Your task to perform on an android device: turn off notifications settings in the gmail app Image 0: 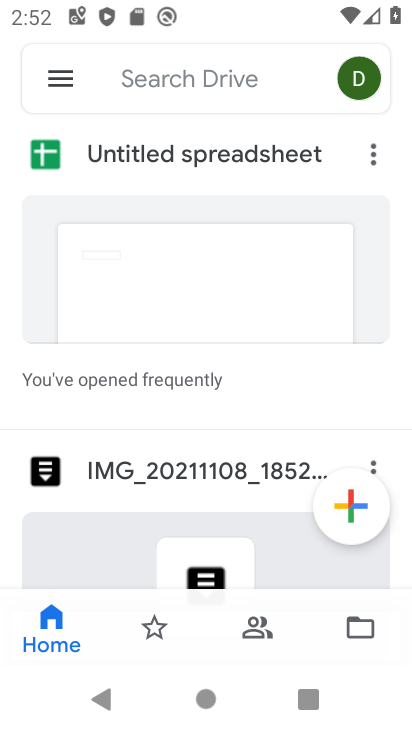
Step 0: press home button
Your task to perform on an android device: turn off notifications settings in the gmail app Image 1: 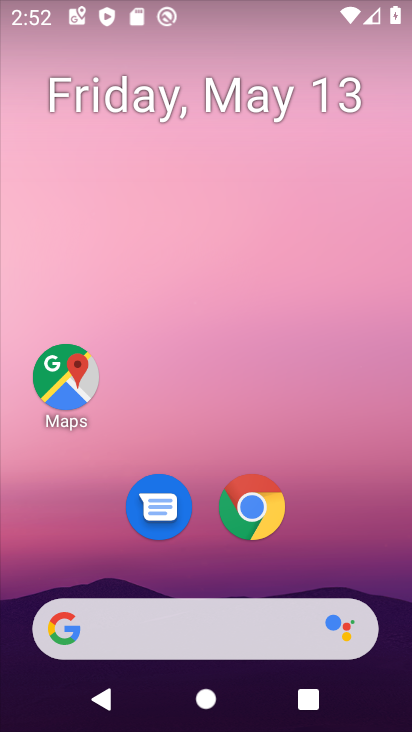
Step 1: drag from (294, 479) to (254, 78)
Your task to perform on an android device: turn off notifications settings in the gmail app Image 2: 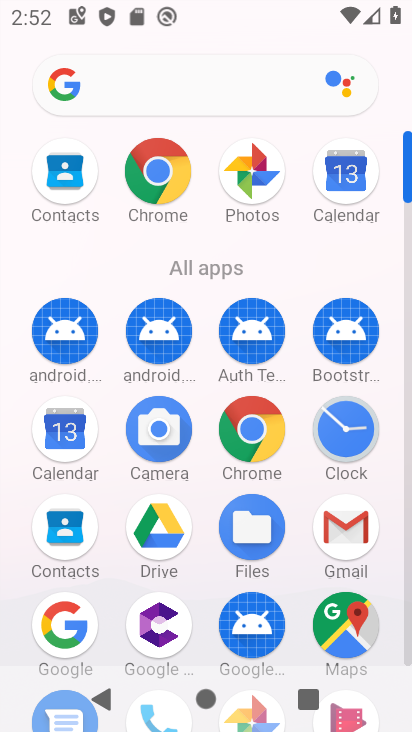
Step 2: click (333, 530)
Your task to perform on an android device: turn off notifications settings in the gmail app Image 3: 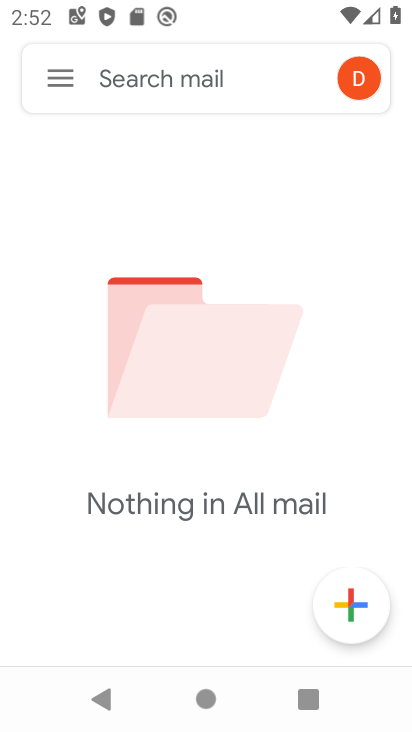
Step 3: click (63, 72)
Your task to perform on an android device: turn off notifications settings in the gmail app Image 4: 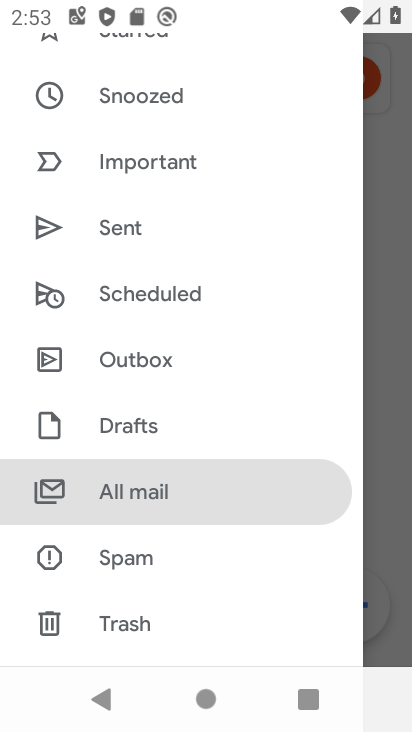
Step 4: drag from (195, 287) to (207, 663)
Your task to perform on an android device: turn off notifications settings in the gmail app Image 5: 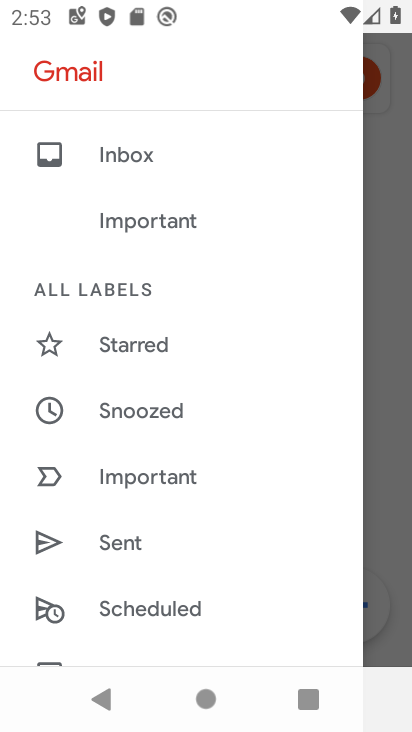
Step 5: drag from (192, 453) to (192, 235)
Your task to perform on an android device: turn off notifications settings in the gmail app Image 6: 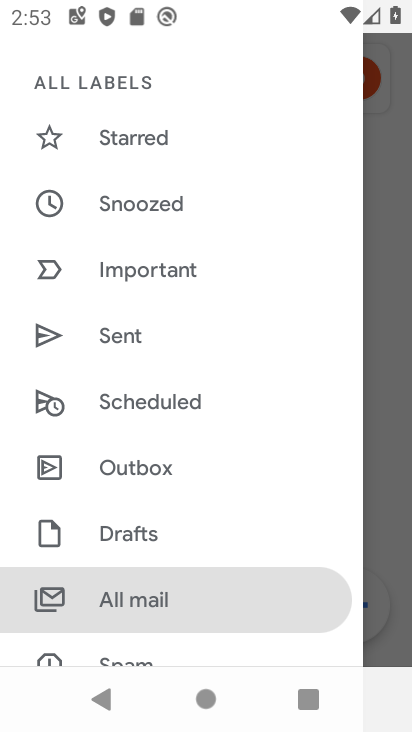
Step 6: drag from (142, 595) to (181, 208)
Your task to perform on an android device: turn off notifications settings in the gmail app Image 7: 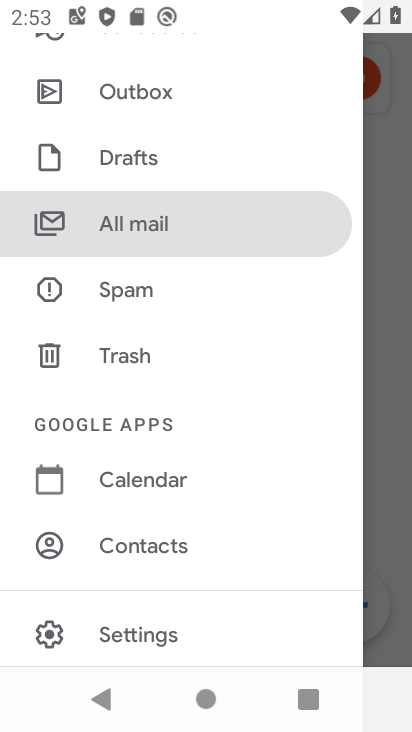
Step 7: click (116, 629)
Your task to perform on an android device: turn off notifications settings in the gmail app Image 8: 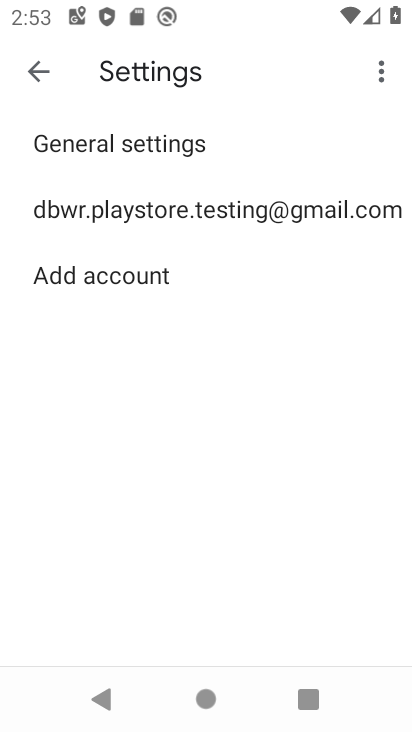
Step 8: click (73, 212)
Your task to perform on an android device: turn off notifications settings in the gmail app Image 9: 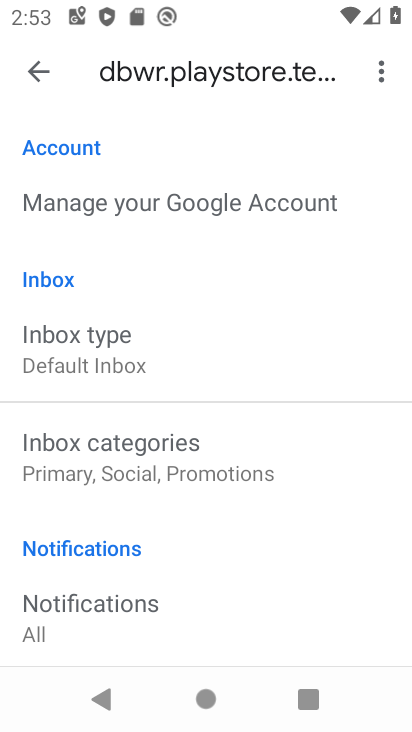
Step 9: drag from (121, 491) to (135, 192)
Your task to perform on an android device: turn off notifications settings in the gmail app Image 10: 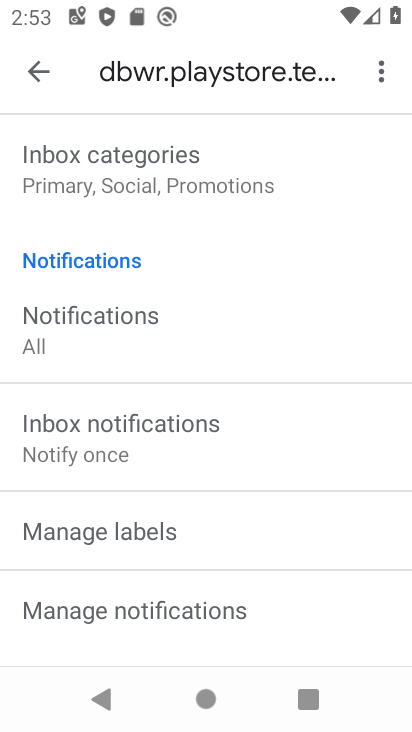
Step 10: drag from (121, 481) to (100, 311)
Your task to perform on an android device: turn off notifications settings in the gmail app Image 11: 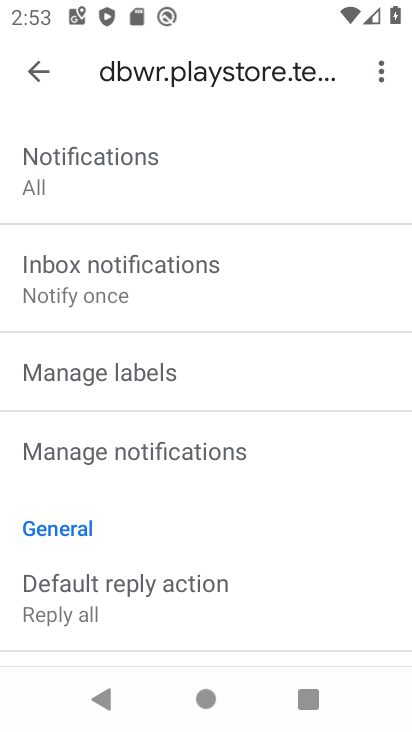
Step 11: click (112, 156)
Your task to perform on an android device: turn off notifications settings in the gmail app Image 12: 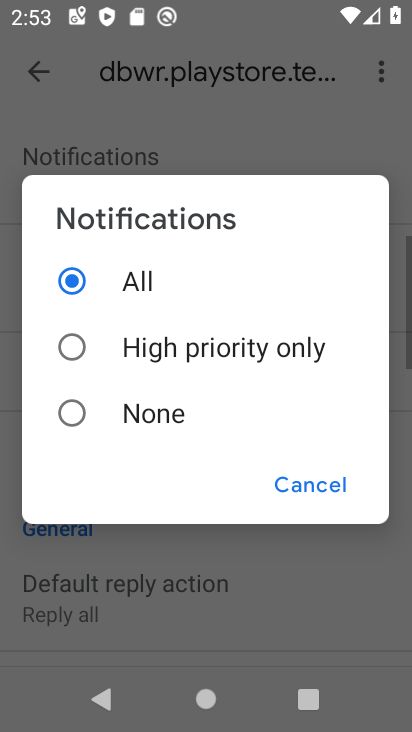
Step 12: click (136, 410)
Your task to perform on an android device: turn off notifications settings in the gmail app Image 13: 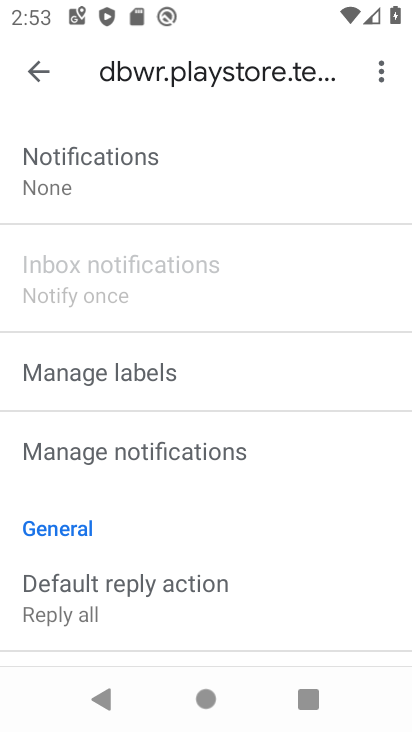
Step 13: task complete